Your task to perform on an android device: change your default location settings in chrome Image 0: 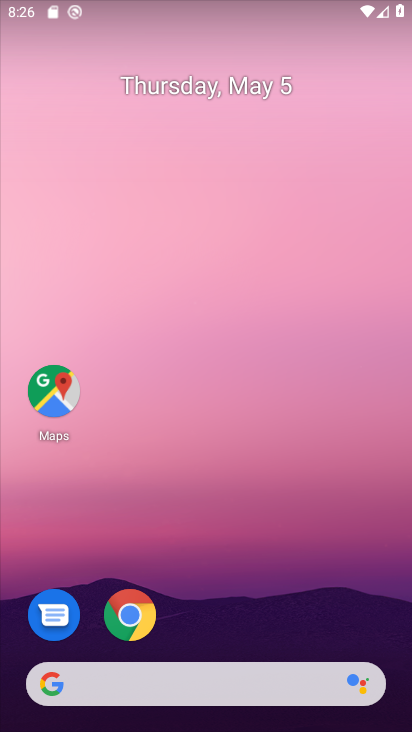
Step 0: click (129, 617)
Your task to perform on an android device: change your default location settings in chrome Image 1: 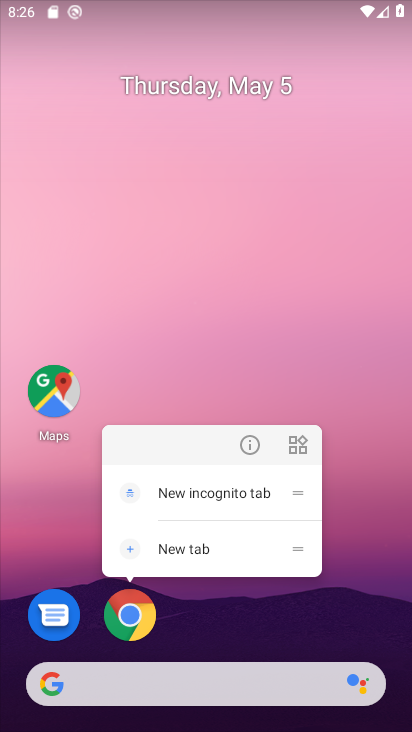
Step 1: click (129, 617)
Your task to perform on an android device: change your default location settings in chrome Image 2: 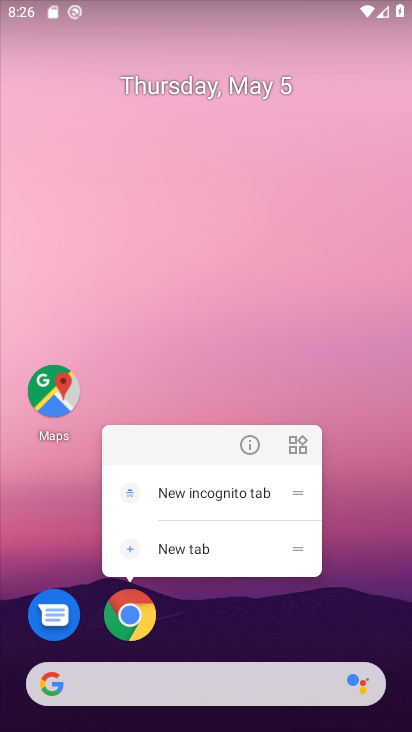
Step 2: click (212, 653)
Your task to perform on an android device: change your default location settings in chrome Image 3: 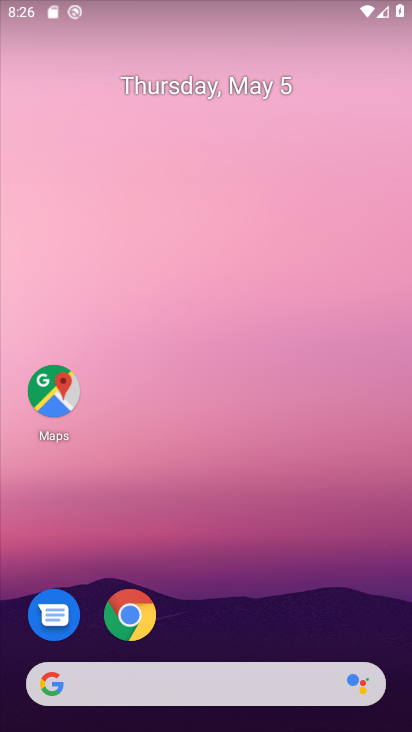
Step 3: drag from (213, 659) to (192, 217)
Your task to perform on an android device: change your default location settings in chrome Image 4: 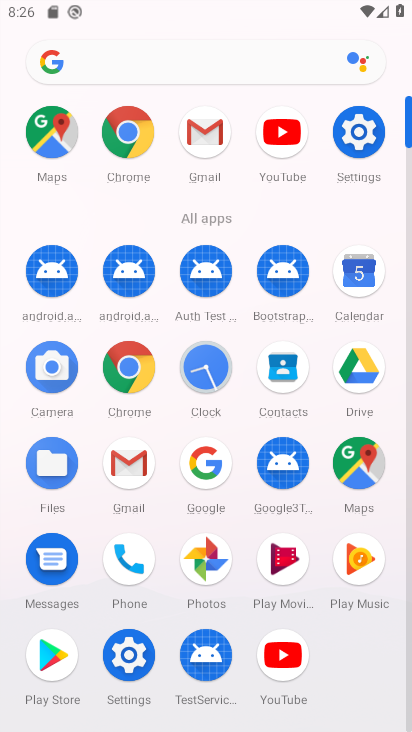
Step 4: click (122, 136)
Your task to perform on an android device: change your default location settings in chrome Image 5: 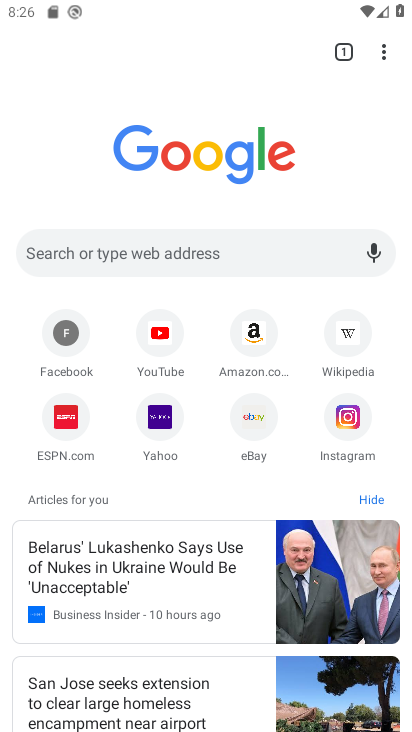
Step 5: click (381, 47)
Your task to perform on an android device: change your default location settings in chrome Image 6: 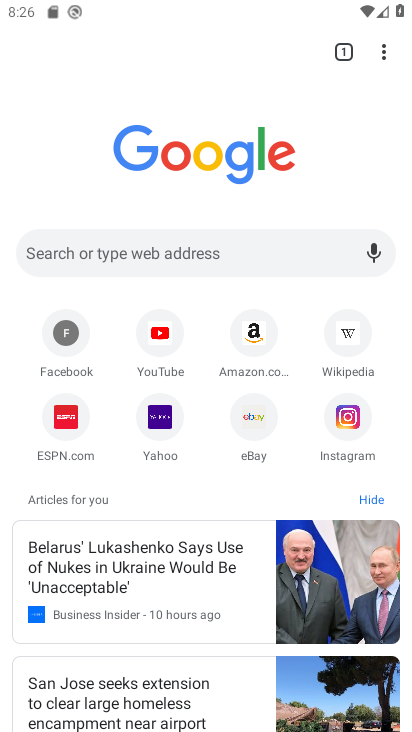
Step 6: click (389, 52)
Your task to perform on an android device: change your default location settings in chrome Image 7: 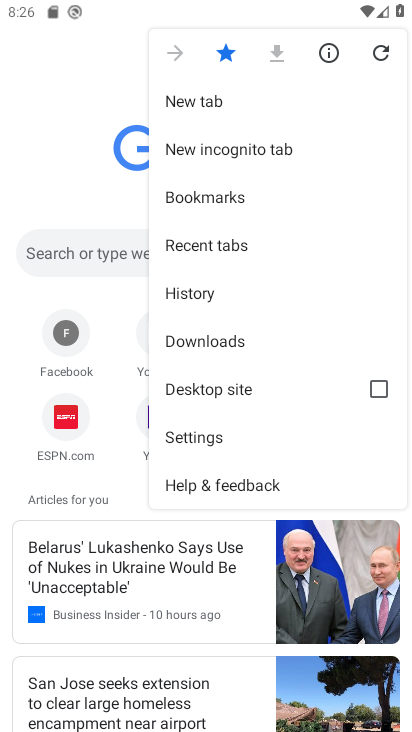
Step 7: click (194, 428)
Your task to perform on an android device: change your default location settings in chrome Image 8: 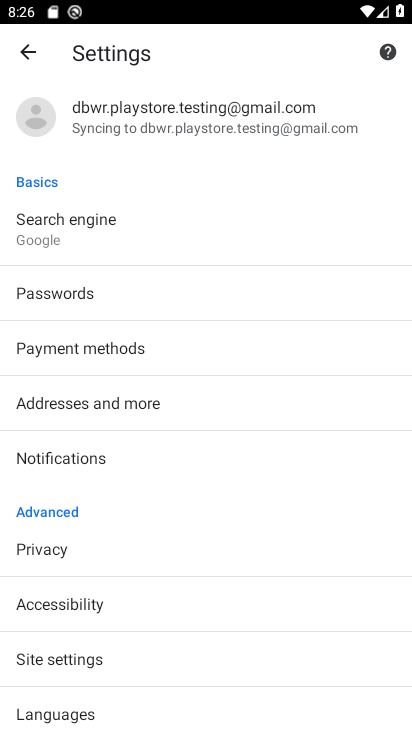
Step 8: click (69, 654)
Your task to perform on an android device: change your default location settings in chrome Image 9: 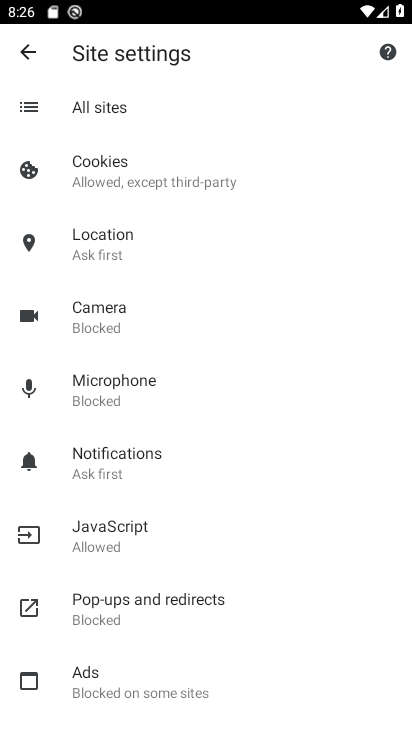
Step 9: click (104, 253)
Your task to perform on an android device: change your default location settings in chrome Image 10: 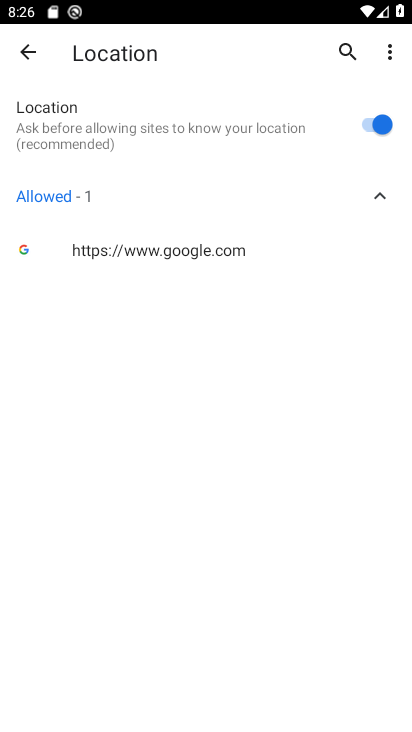
Step 10: click (368, 127)
Your task to perform on an android device: change your default location settings in chrome Image 11: 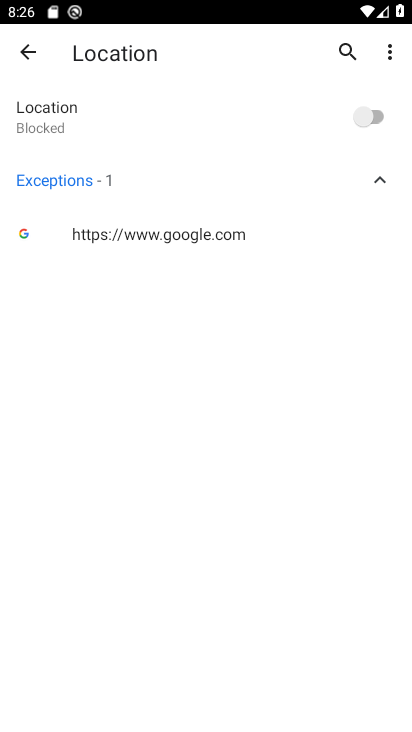
Step 11: task complete